Your task to perform on an android device: change the clock display to digital Image 0: 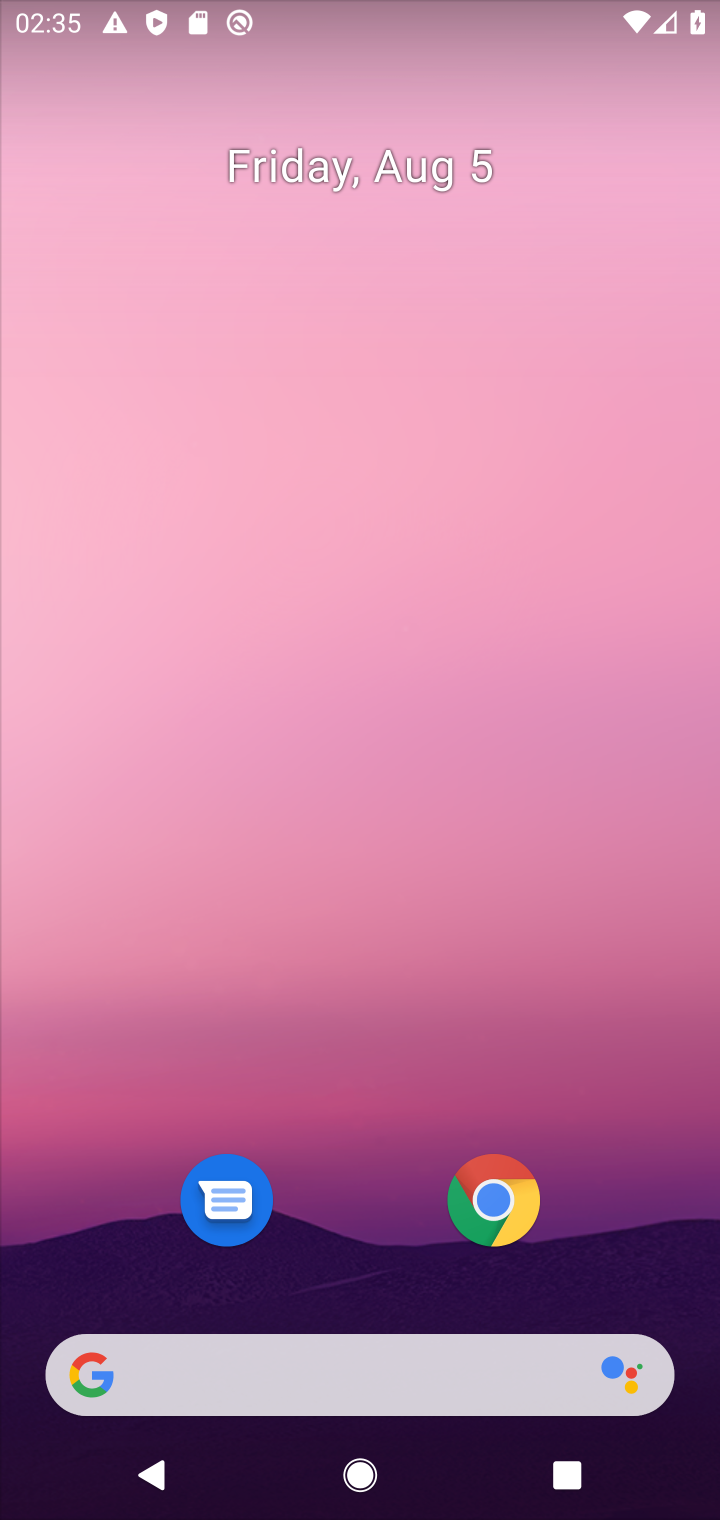
Step 0: drag from (354, 971) to (338, 411)
Your task to perform on an android device: change the clock display to digital Image 1: 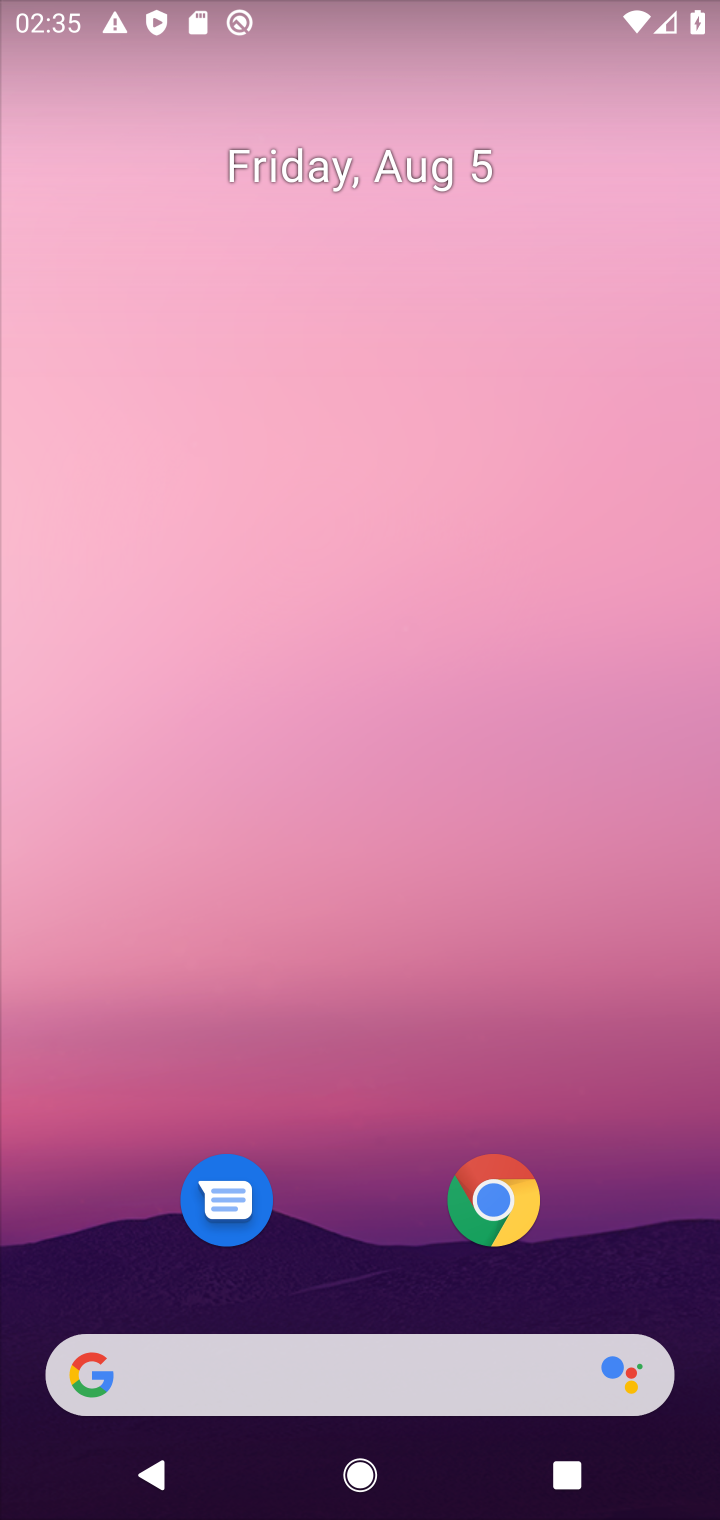
Step 1: drag from (358, 1071) to (303, 370)
Your task to perform on an android device: change the clock display to digital Image 2: 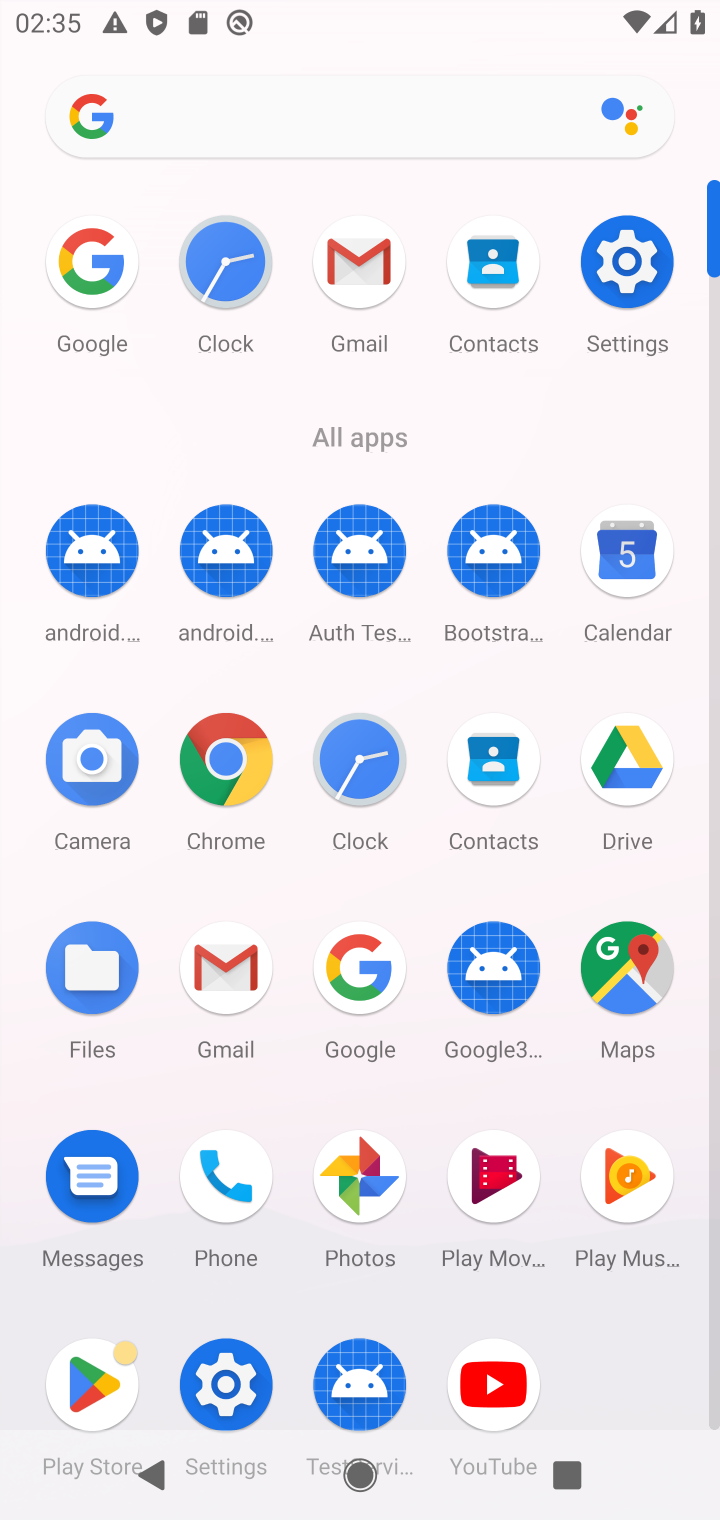
Step 2: click (257, 294)
Your task to perform on an android device: change the clock display to digital Image 3: 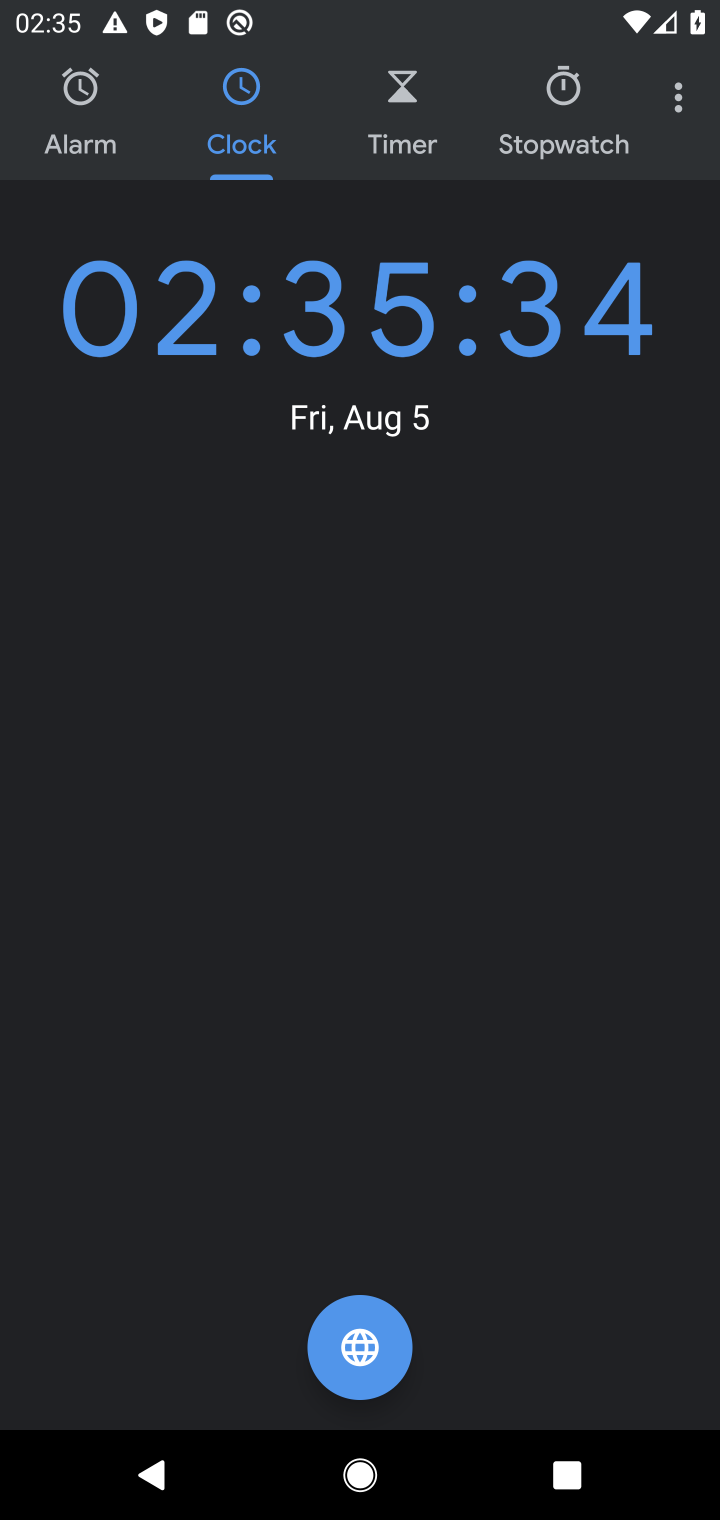
Step 3: click (668, 103)
Your task to perform on an android device: change the clock display to digital Image 4: 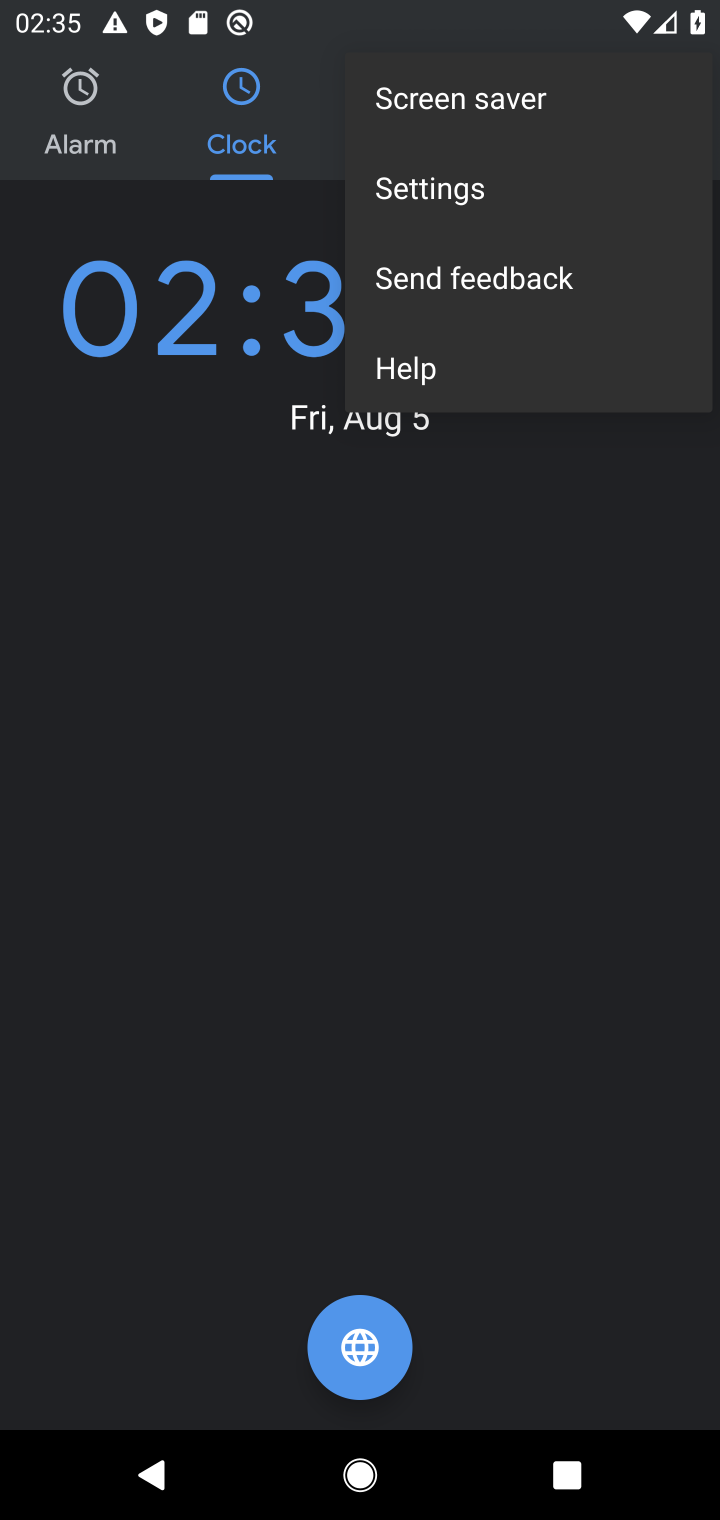
Step 4: click (507, 203)
Your task to perform on an android device: change the clock display to digital Image 5: 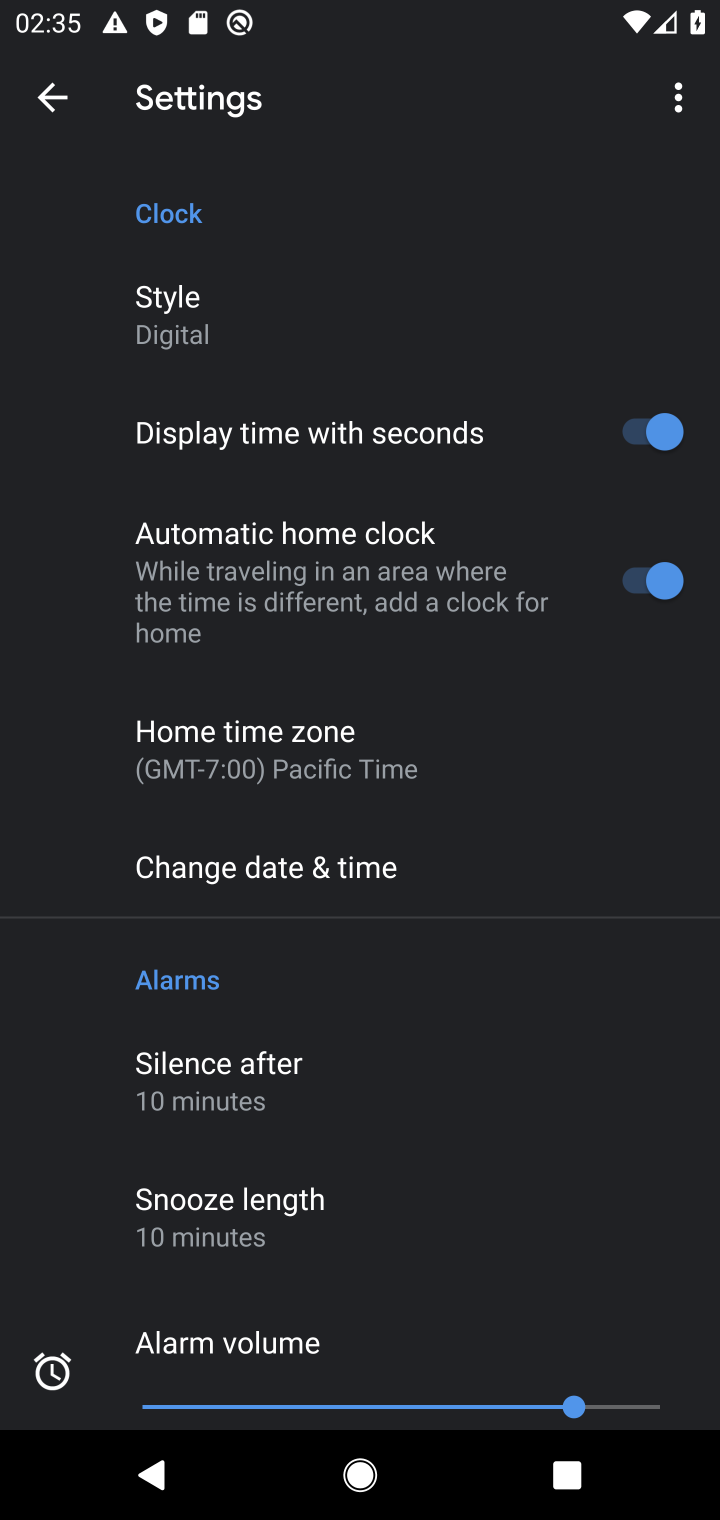
Step 5: click (227, 333)
Your task to perform on an android device: change the clock display to digital Image 6: 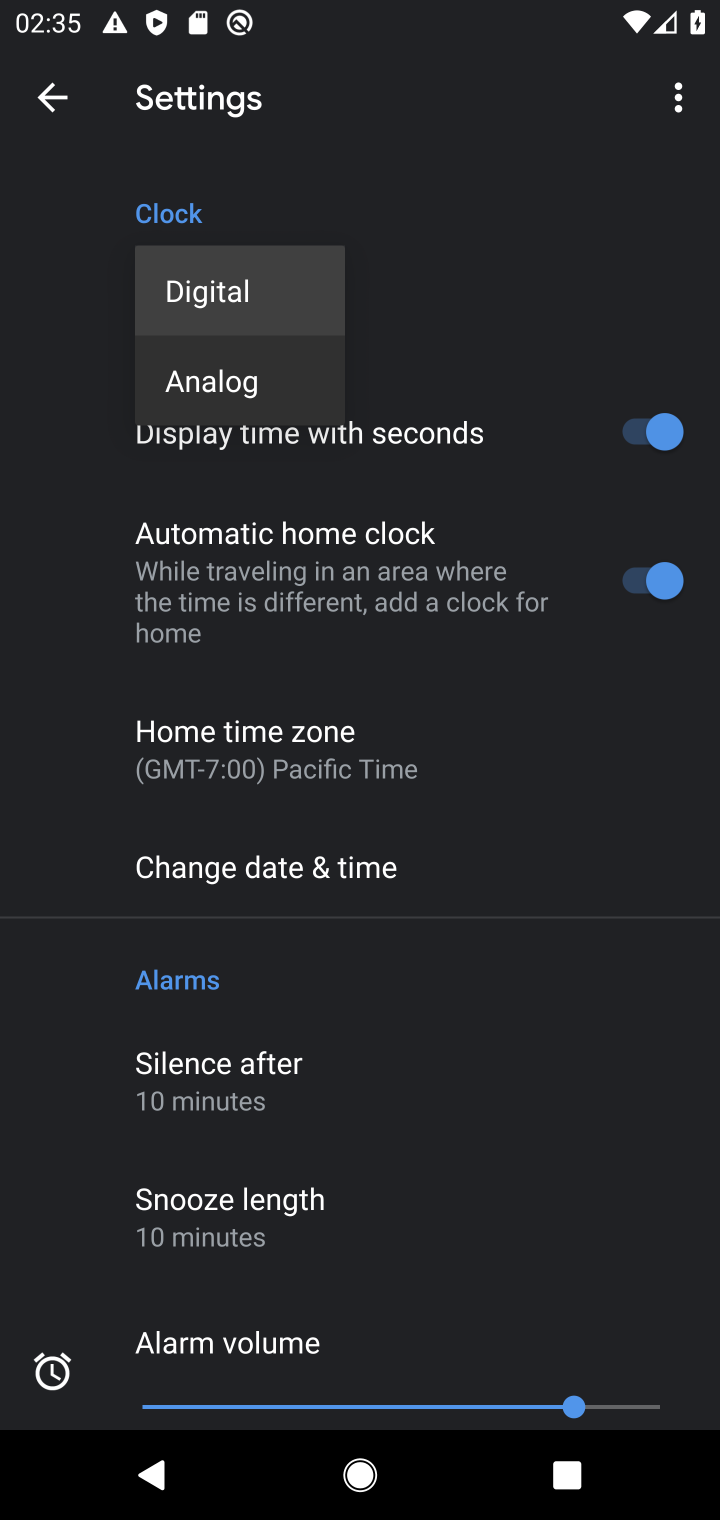
Step 6: task complete